Your task to perform on an android device: Clear all items from cart on amazon.com. Add logitech g910 to the cart on amazon.com, then select checkout. Image 0: 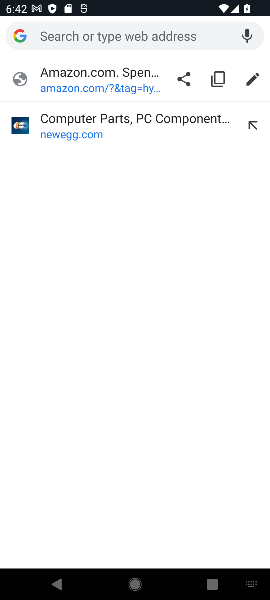
Step 0: click (111, 73)
Your task to perform on an android device: Clear all items from cart on amazon.com. Add logitech g910 to the cart on amazon.com, then select checkout. Image 1: 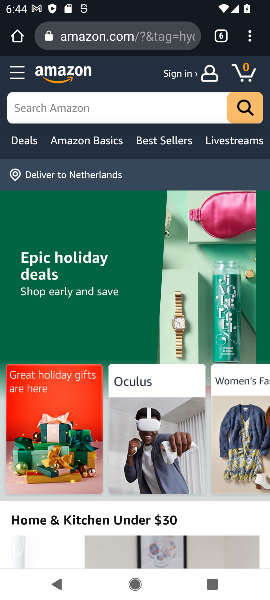
Step 1: click (117, 121)
Your task to perform on an android device: Clear all items from cart on amazon.com. Add logitech g910 to the cart on amazon.com, then select checkout. Image 2: 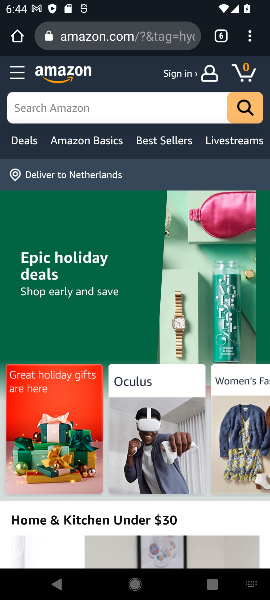
Step 2: type "logitech gpro"
Your task to perform on an android device: Clear all items from cart on amazon.com. Add logitech g910 to the cart on amazon.com, then select checkout. Image 3: 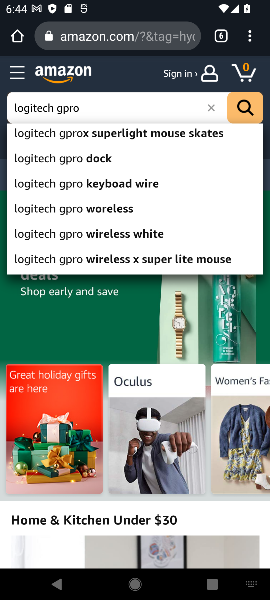
Step 3: click (247, 116)
Your task to perform on an android device: Clear all items from cart on amazon.com. Add logitech g910 to the cart on amazon.com, then select checkout. Image 4: 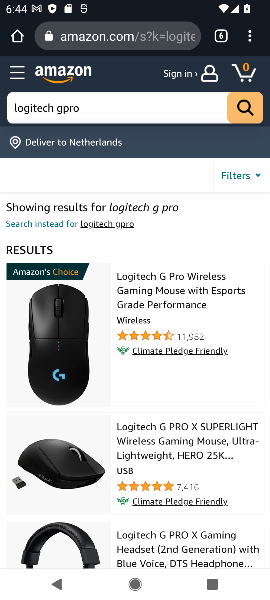
Step 4: task complete